Your task to perform on an android device: Clear the shopping cart on bestbuy.com. Add razer thresher to the cart on bestbuy.com, then select checkout. Image 0: 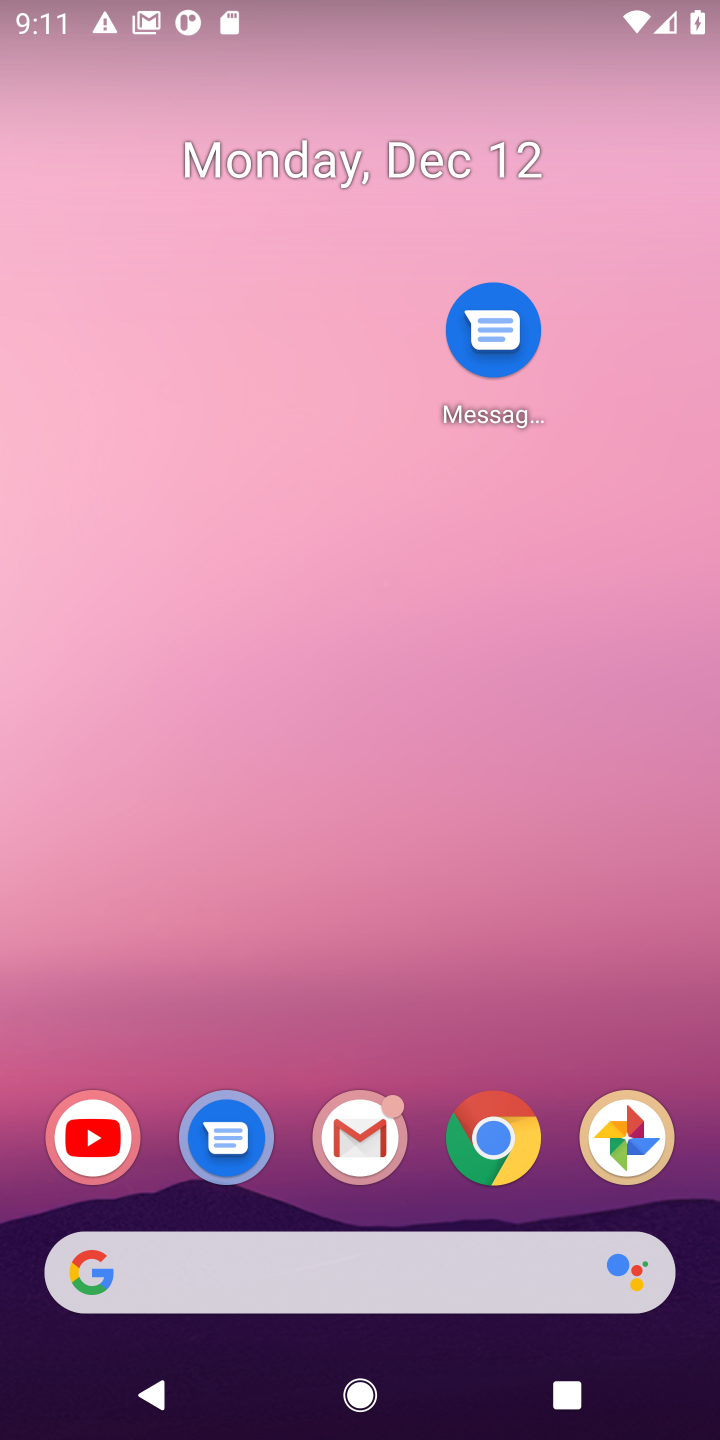
Step 0: drag from (336, 1006) to (338, 571)
Your task to perform on an android device: Clear the shopping cart on bestbuy.com. Add razer thresher to the cart on bestbuy.com, then select checkout. Image 1: 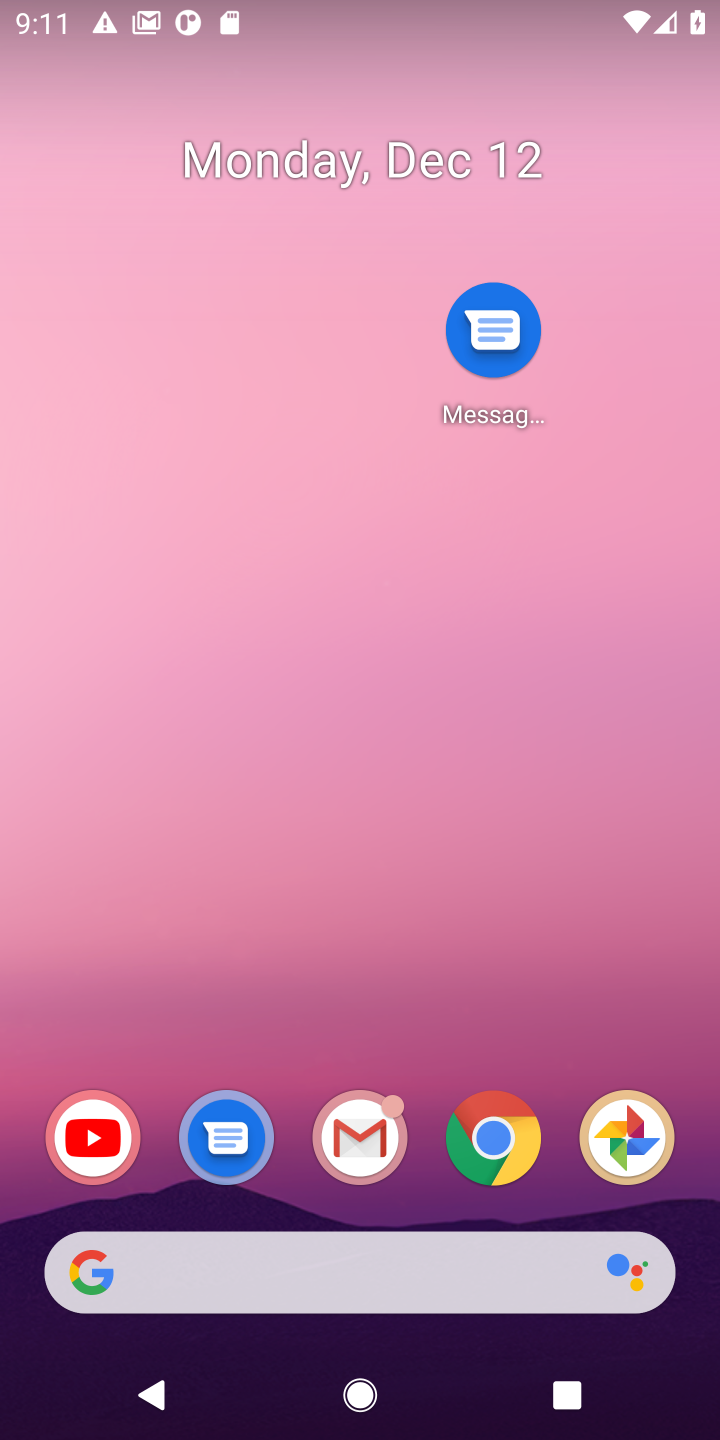
Step 1: click (312, 622)
Your task to perform on an android device: Clear the shopping cart on bestbuy.com. Add razer thresher to the cart on bestbuy.com, then select checkout. Image 2: 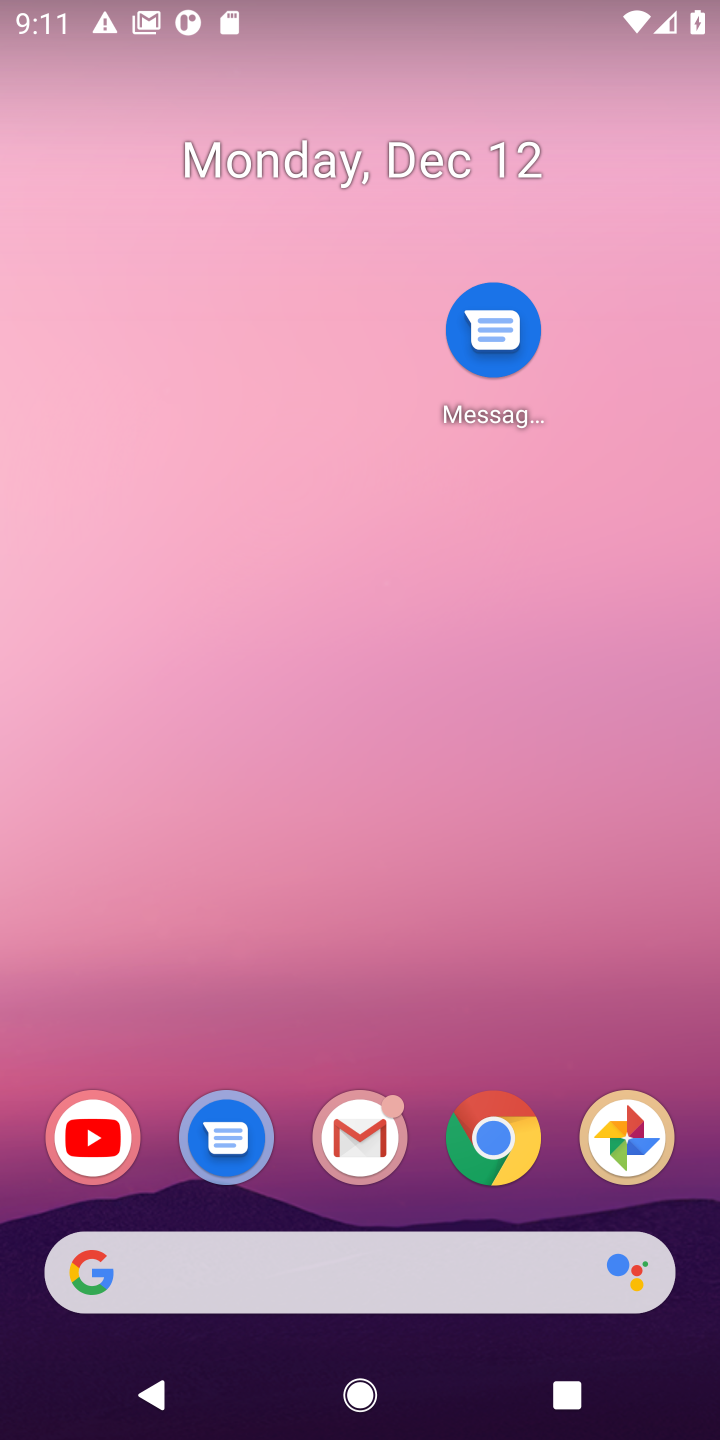
Step 2: drag from (306, 1081) to (277, 611)
Your task to perform on an android device: Clear the shopping cart on bestbuy.com. Add razer thresher to the cart on bestbuy.com, then select checkout. Image 3: 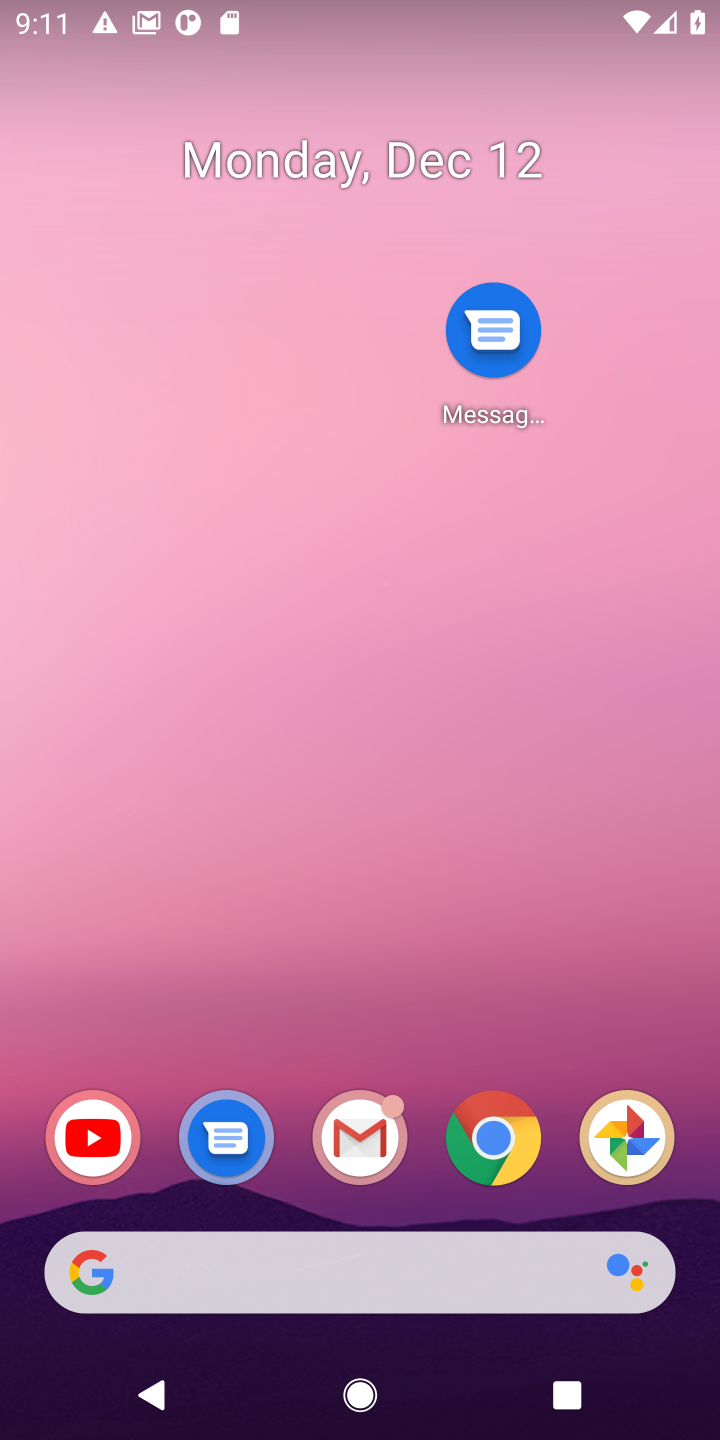
Step 3: drag from (343, 1220) to (328, 456)
Your task to perform on an android device: Clear the shopping cart on bestbuy.com. Add razer thresher to the cart on bestbuy.com, then select checkout. Image 4: 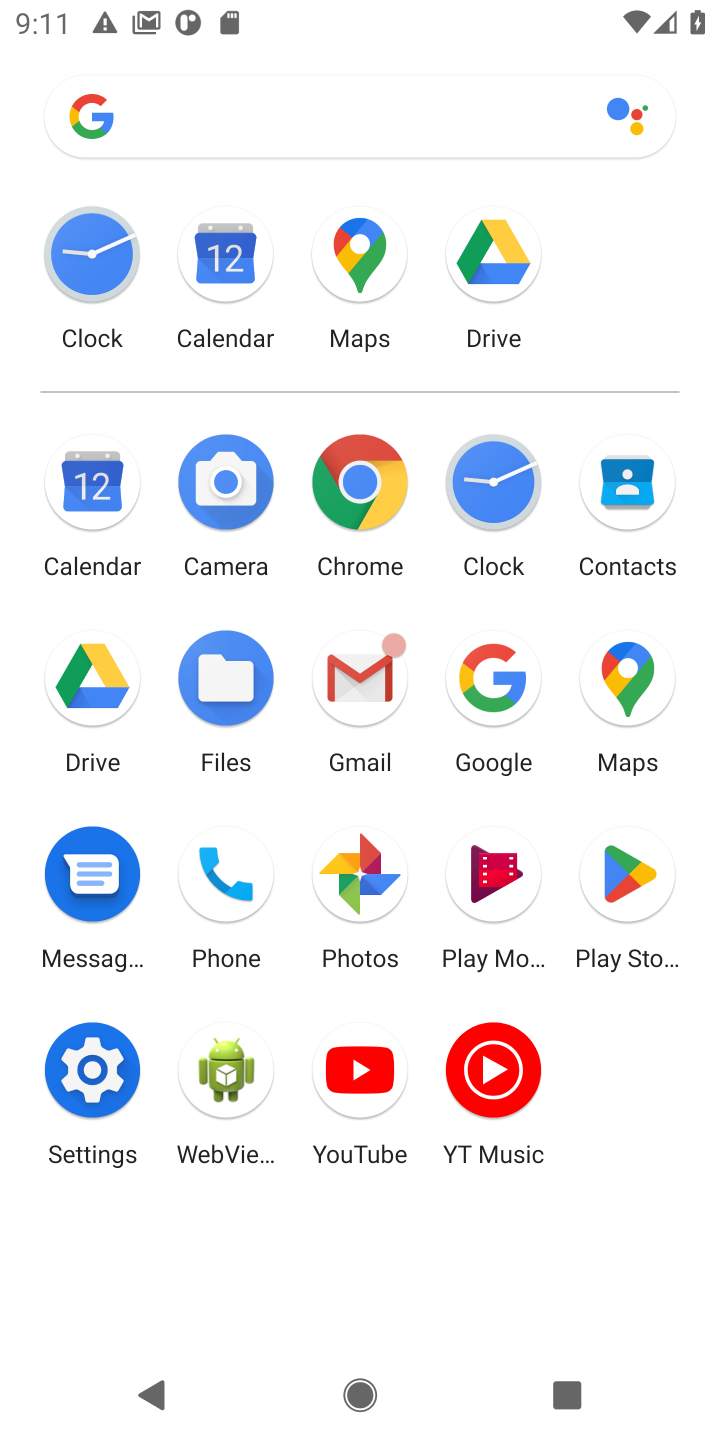
Step 4: click (473, 674)
Your task to perform on an android device: Clear the shopping cart on bestbuy.com. Add razer thresher to the cart on bestbuy.com, then select checkout. Image 5: 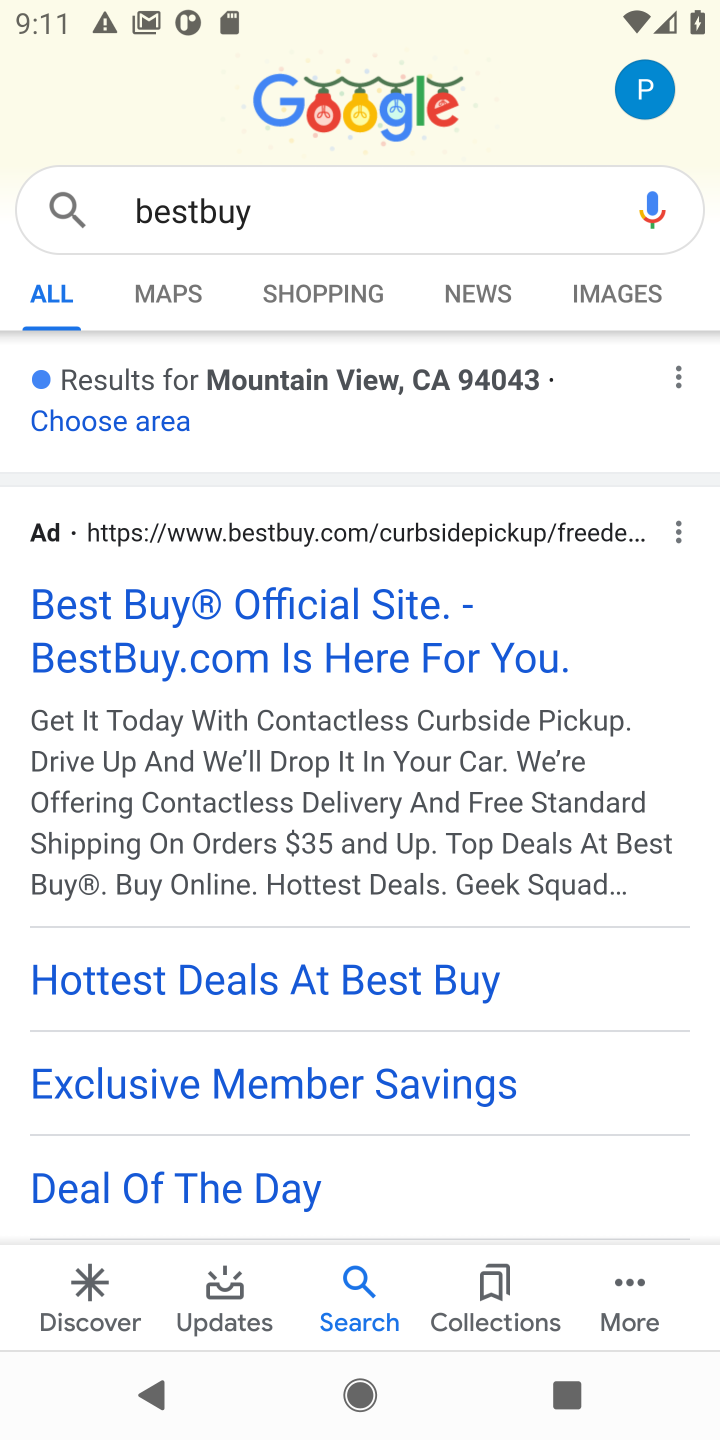
Step 5: click (181, 219)
Your task to perform on an android device: Clear the shopping cart on bestbuy.com. Add razer thresher to the cart on bestbuy.com, then select checkout. Image 6: 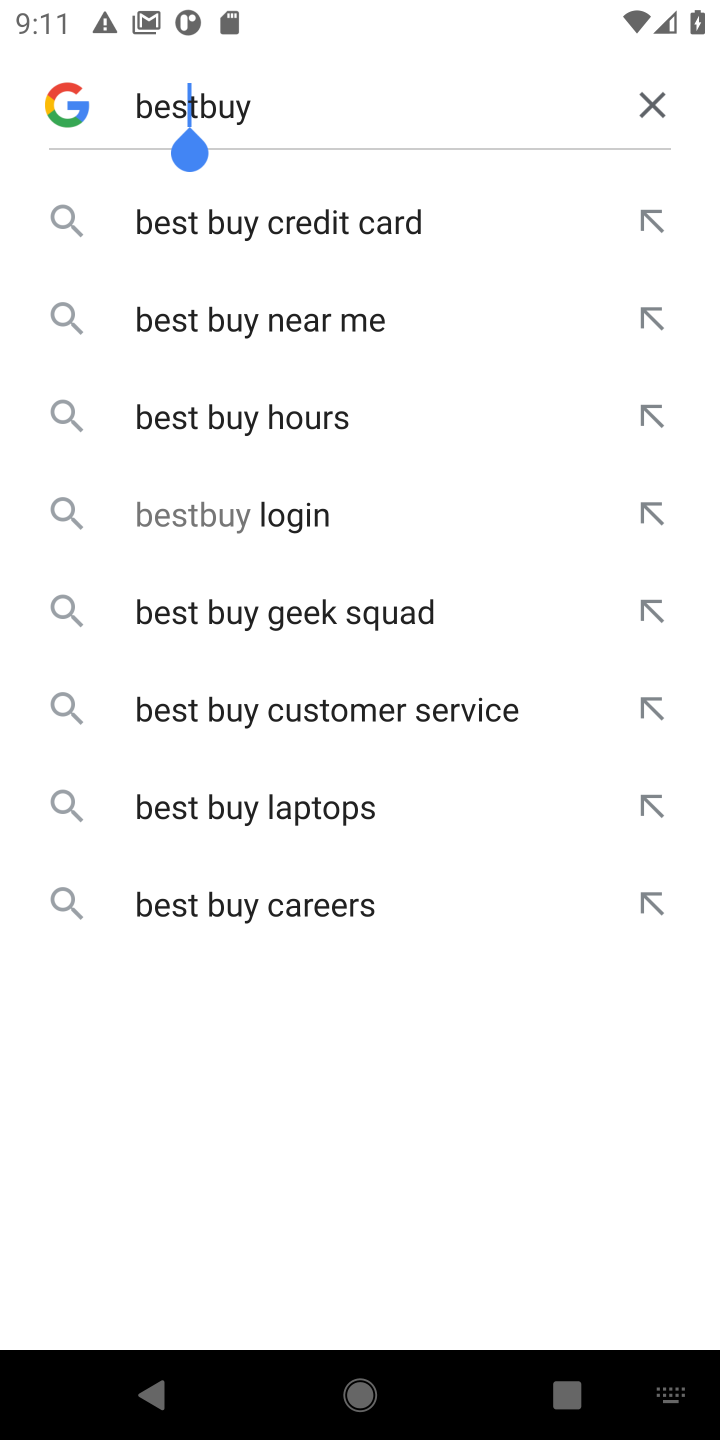
Step 6: click (645, 118)
Your task to perform on an android device: Clear the shopping cart on bestbuy.com. Add razer thresher to the cart on bestbuy.com, then select checkout. Image 7: 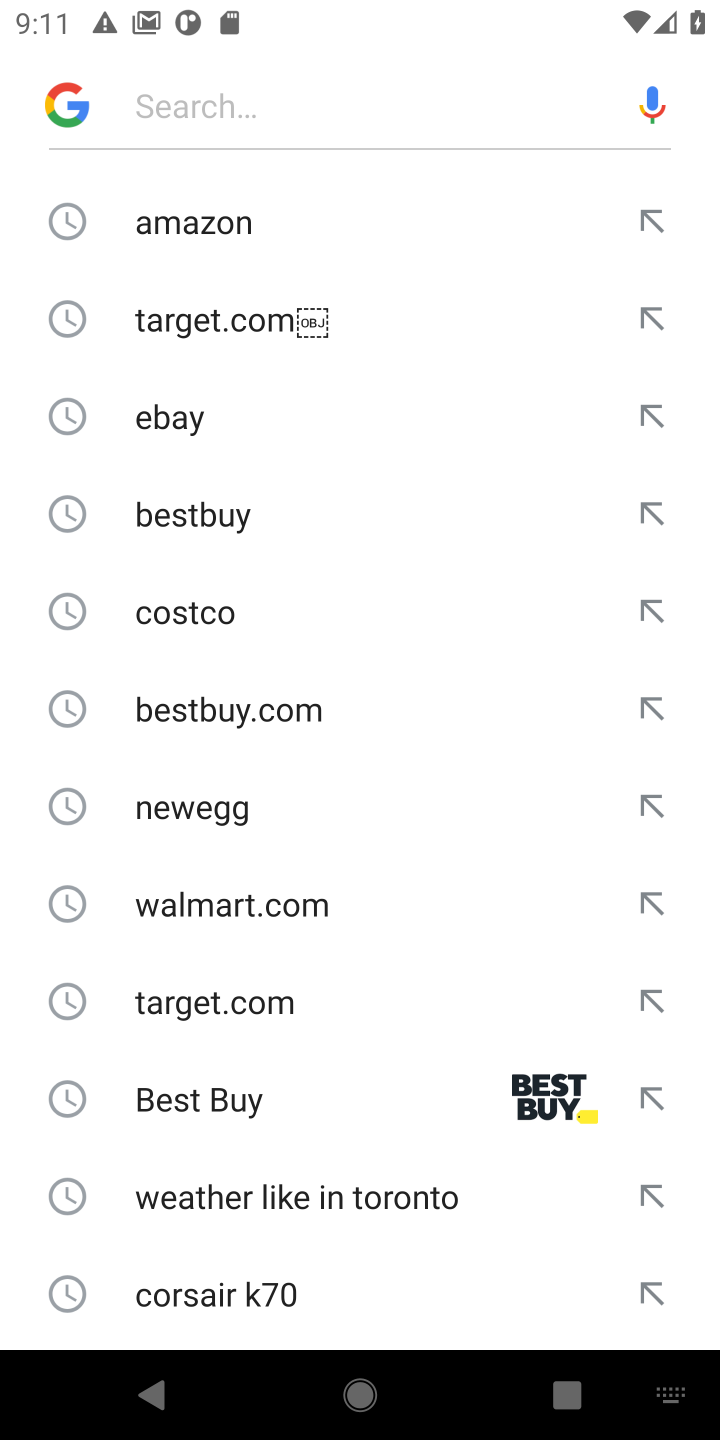
Step 7: click (193, 116)
Your task to perform on an android device: Clear the shopping cart on bestbuy.com. Add razer thresher to the cart on bestbuy.com, then select checkout. Image 8: 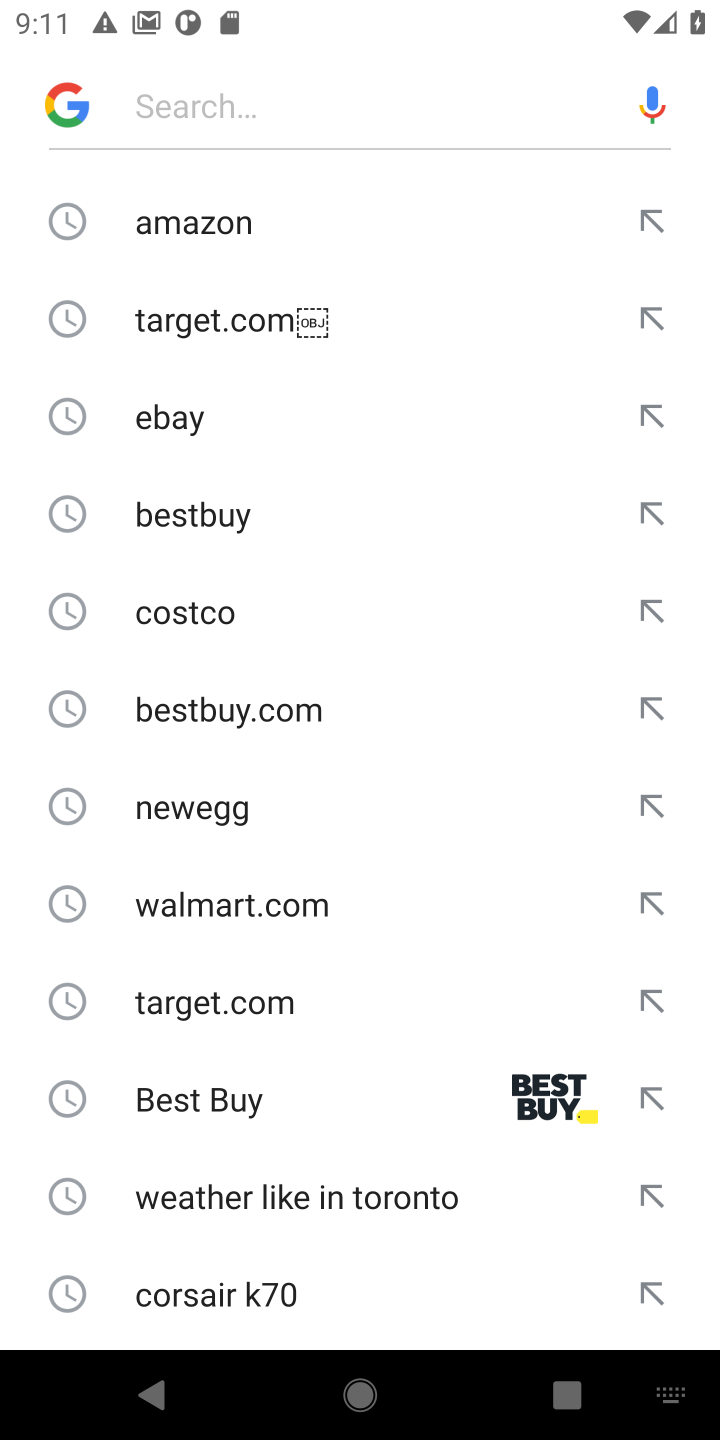
Step 8: click (164, 519)
Your task to perform on an android device: Clear the shopping cart on bestbuy.com. Add razer thresher to the cart on bestbuy.com, then select checkout. Image 9: 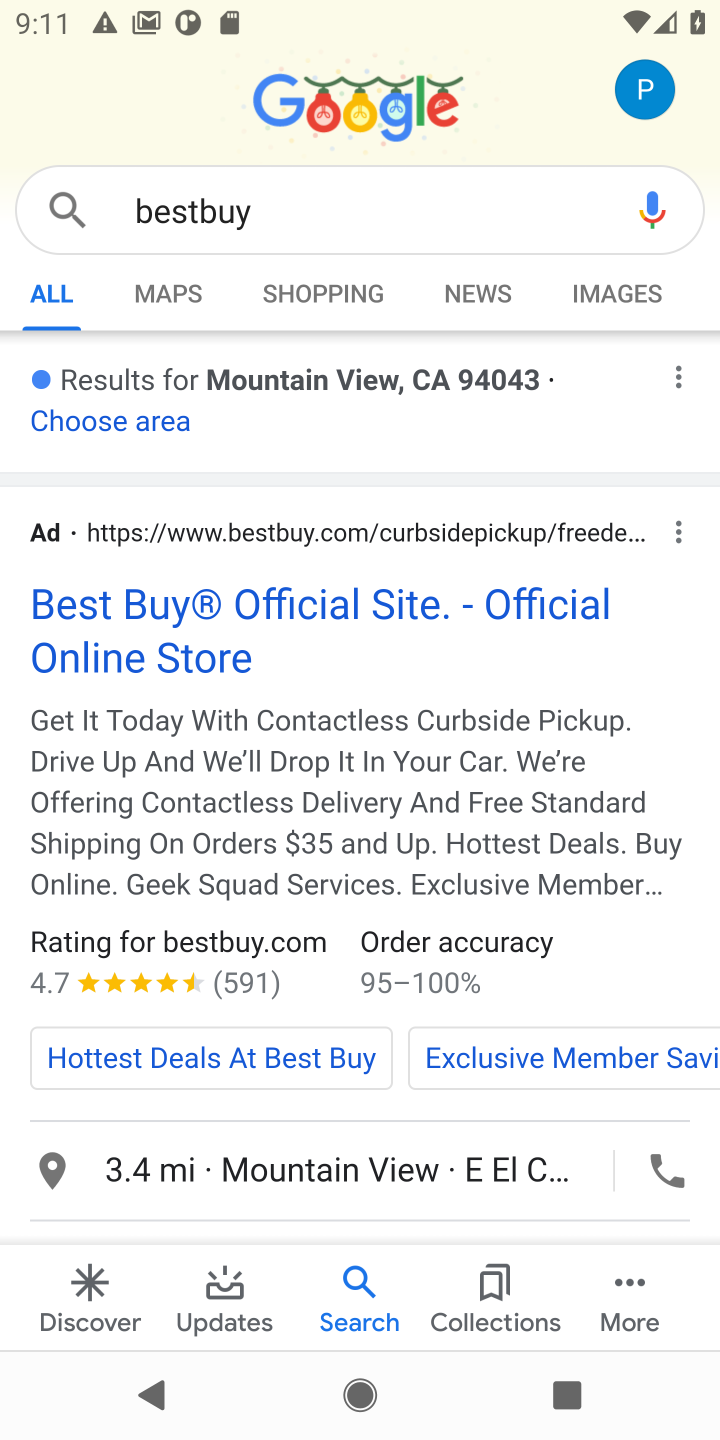
Step 9: click (169, 628)
Your task to perform on an android device: Clear the shopping cart on bestbuy.com. Add razer thresher to the cart on bestbuy.com, then select checkout. Image 10: 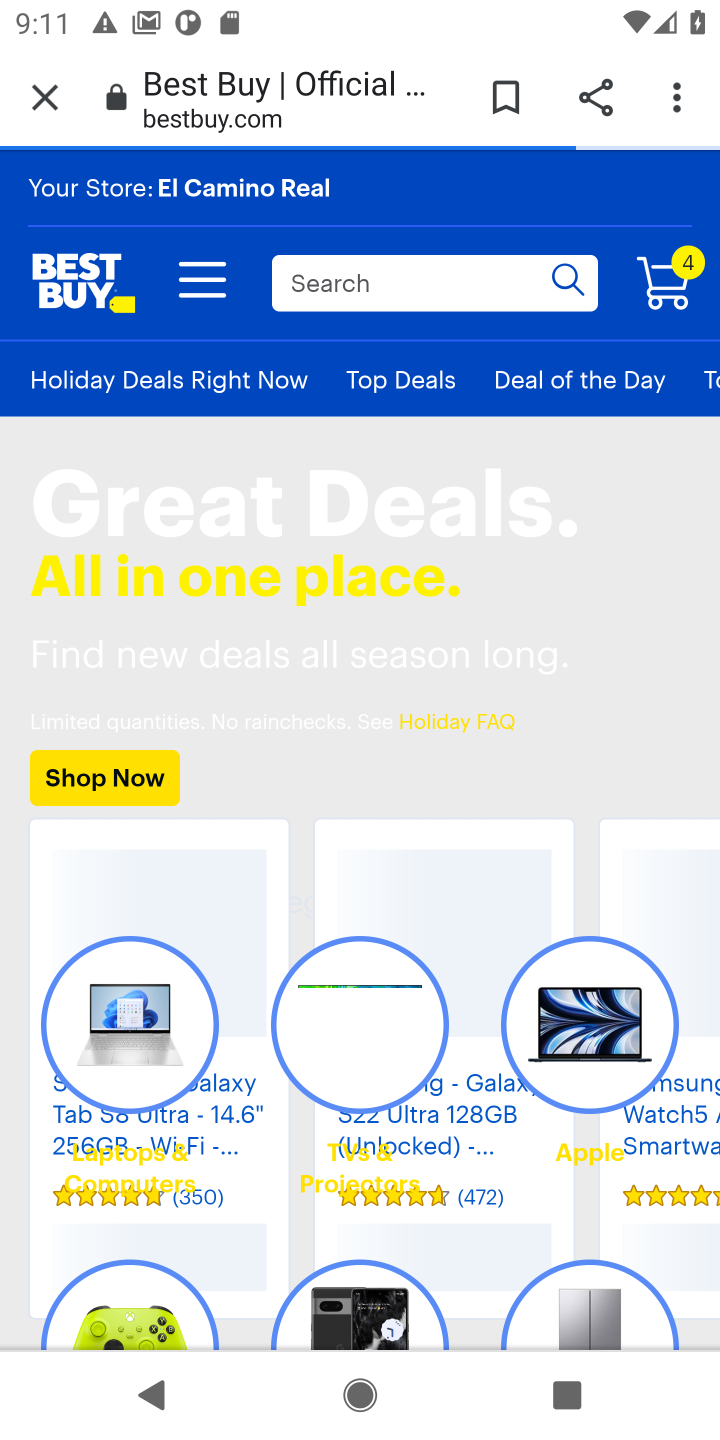
Step 10: click (328, 277)
Your task to perform on an android device: Clear the shopping cart on bestbuy.com. Add razer thresher to the cart on bestbuy.com, then select checkout. Image 11: 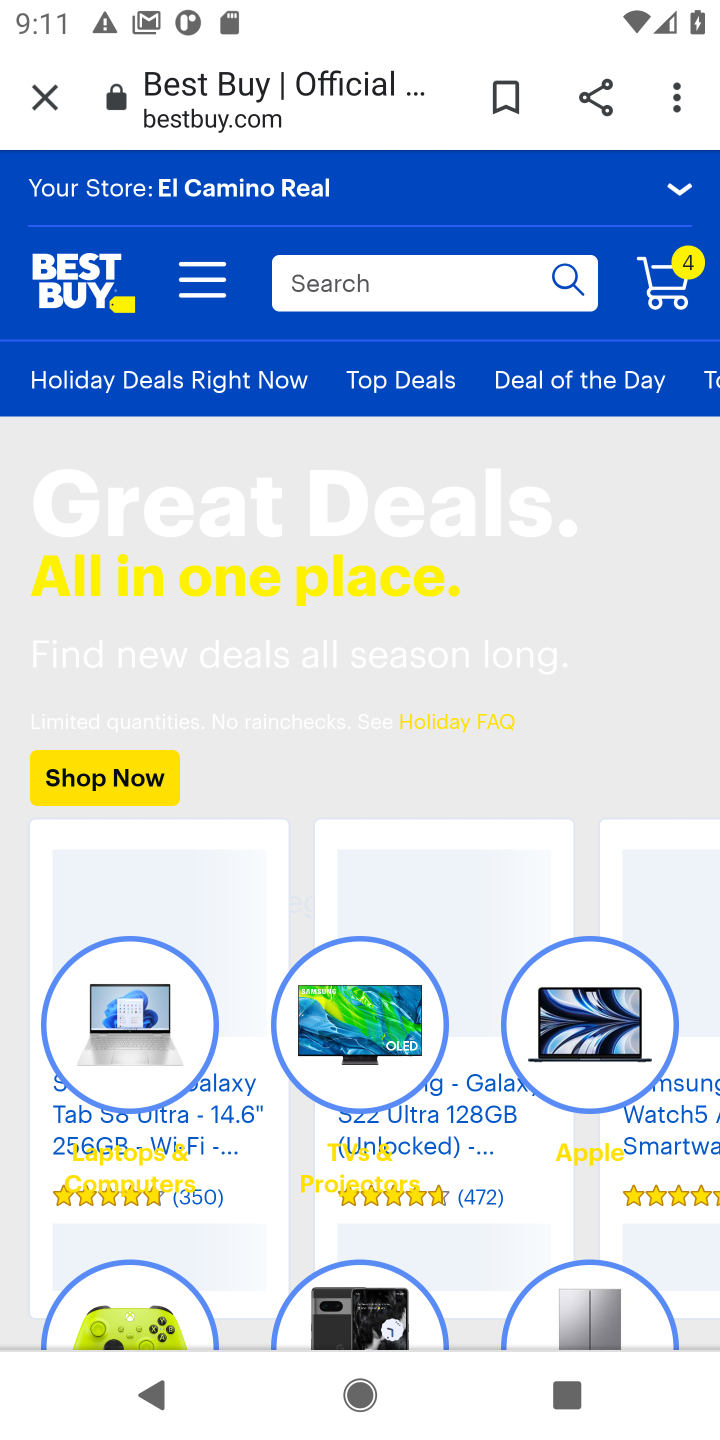
Step 11: click (674, 252)
Your task to perform on an android device: Clear the shopping cart on bestbuy.com. Add razer thresher to the cart on bestbuy.com, then select checkout. Image 12: 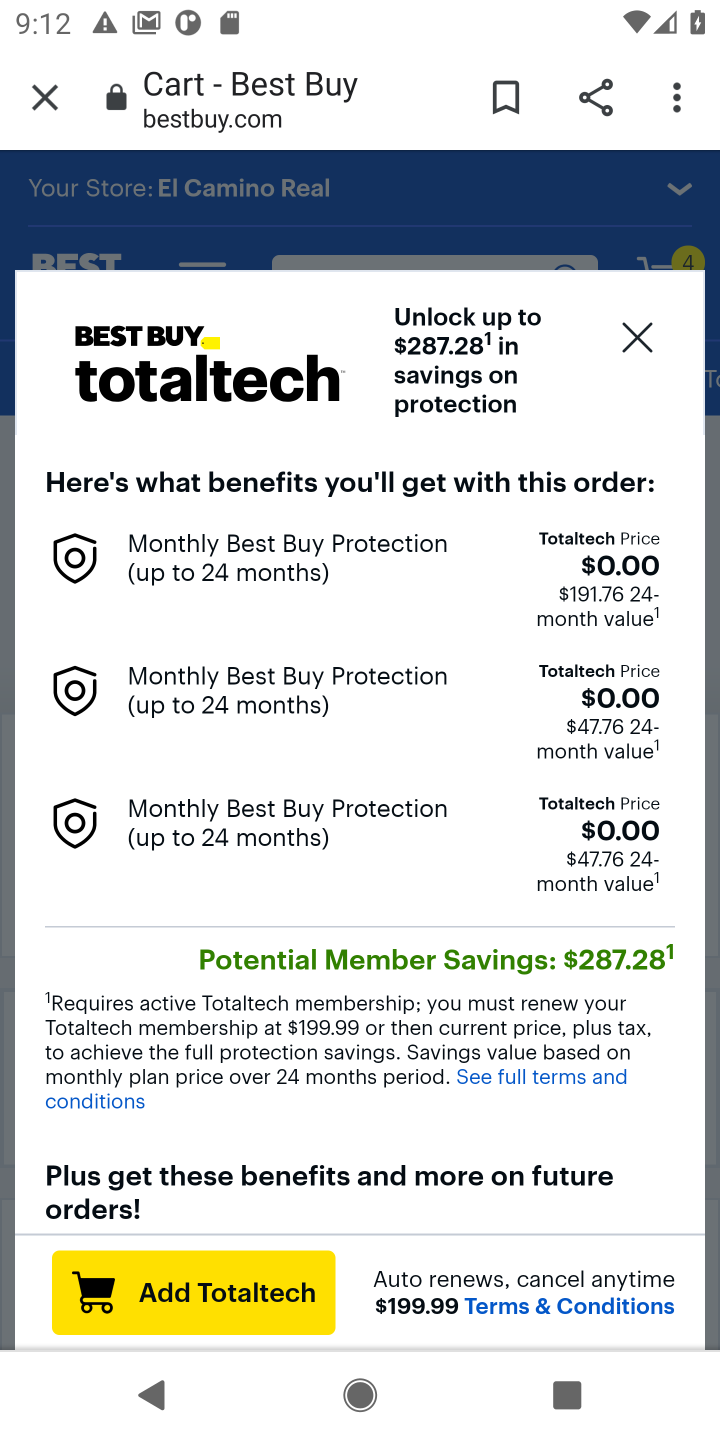
Step 12: click (631, 334)
Your task to perform on an android device: Clear the shopping cart on bestbuy.com. Add razer thresher to the cart on bestbuy.com, then select checkout. Image 13: 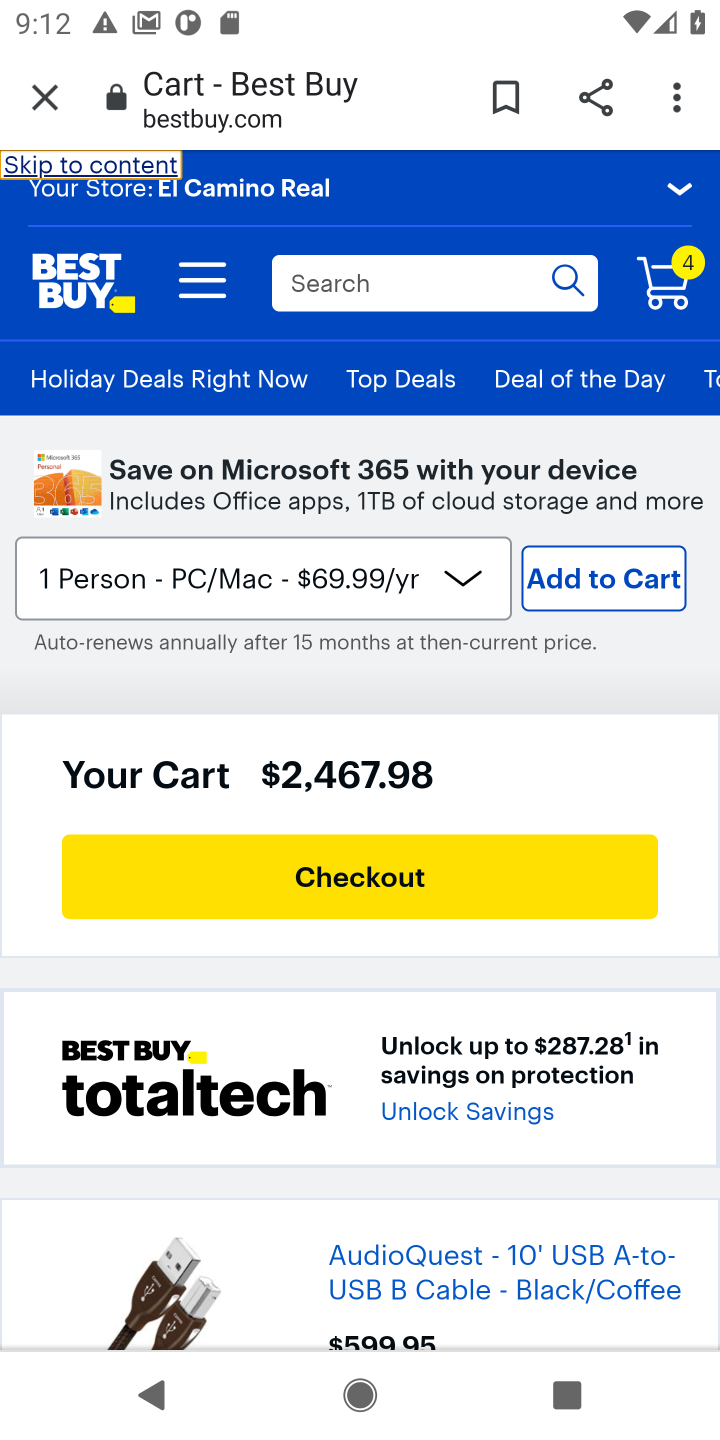
Step 13: drag from (659, 1046) to (609, 484)
Your task to perform on an android device: Clear the shopping cart on bestbuy.com. Add razer thresher to the cart on bestbuy.com, then select checkout. Image 14: 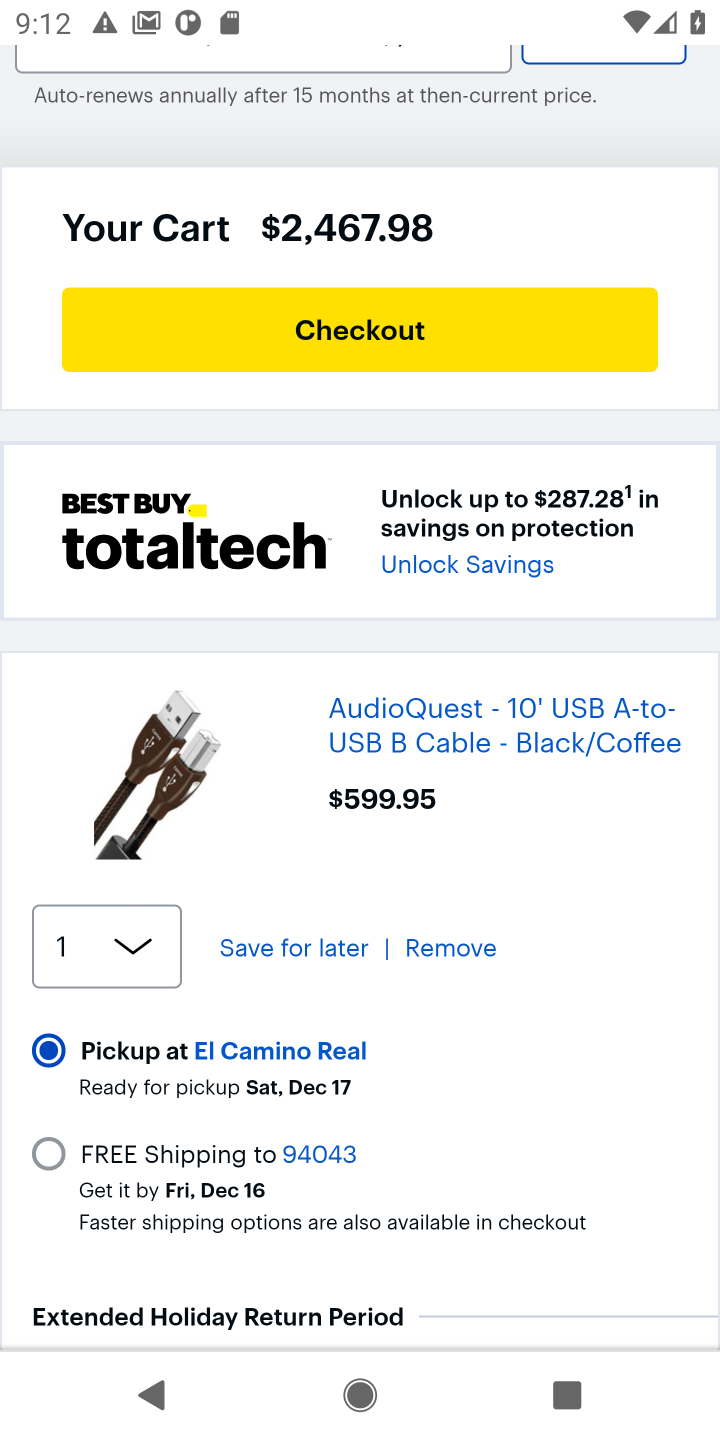
Step 14: drag from (553, 962) to (547, 569)
Your task to perform on an android device: Clear the shopping cart on bestbuy.com. Add razer thresher to the cart on bestbuy.com, then select checkout. Image 15: 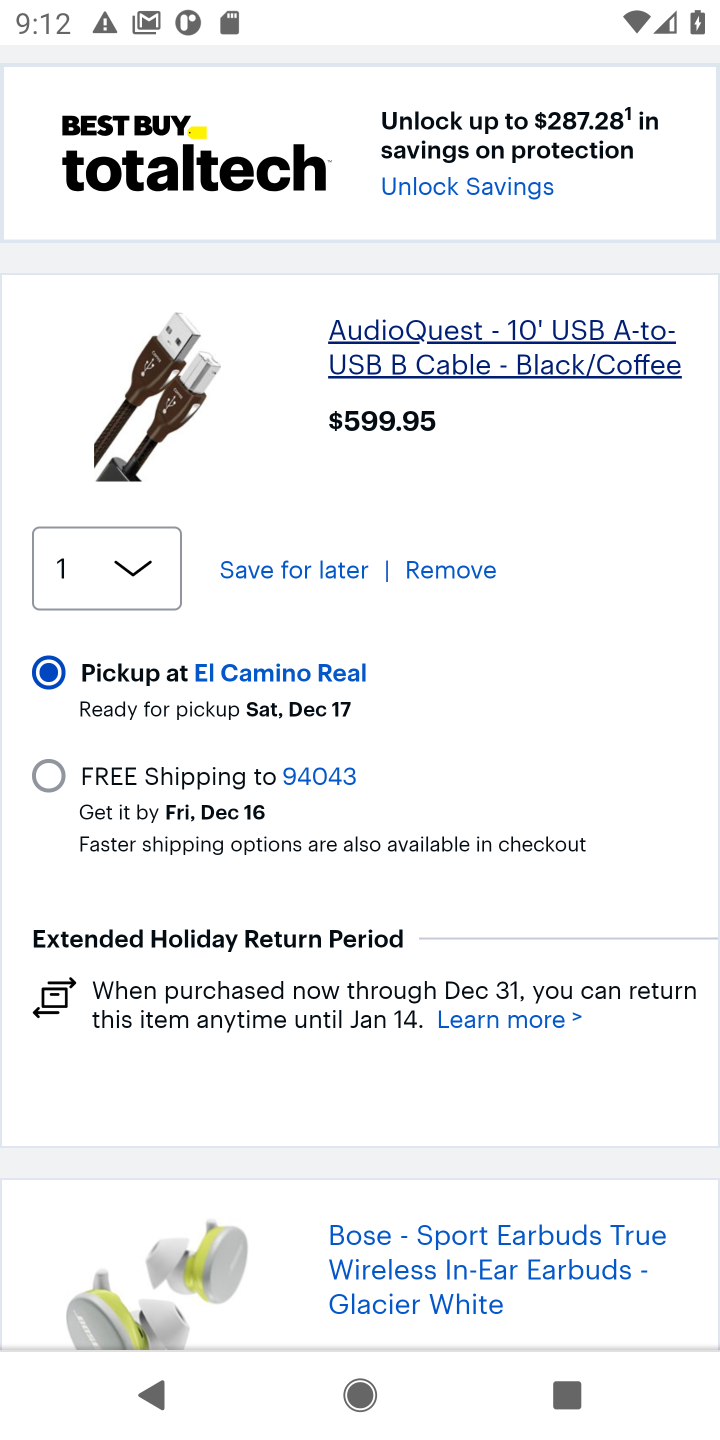
Step 15: click (464, 566)
Your task to perform on an android device: Clear the shopping cart on bestbuy.com. Add razer thresher to the cart on bestbuy.com, then select checkout. Image 16: 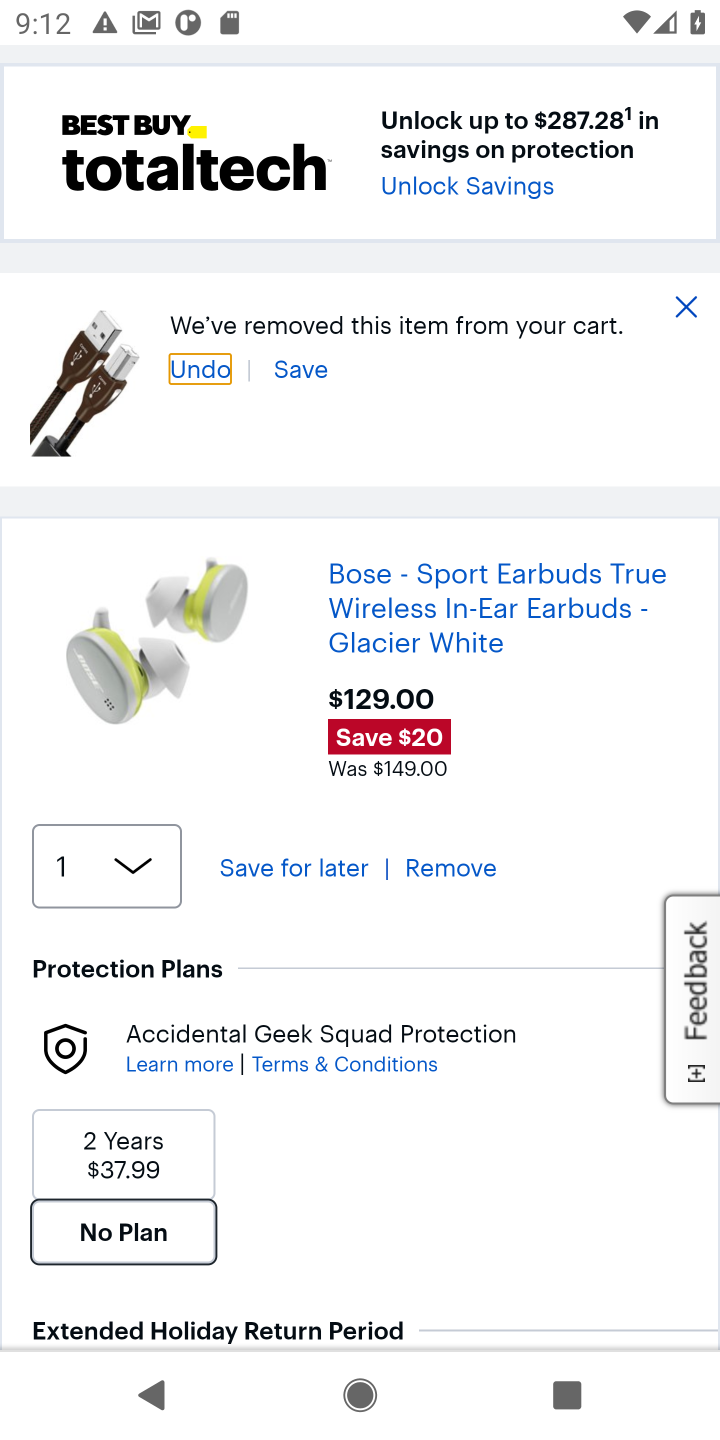
Step 16: click (429, 867)
Your task to perform on an android device: Clear the shopping cart on bestbuy.com. Add razer thresher to the cart on bestbuy.com, then select checkout. Image 17: 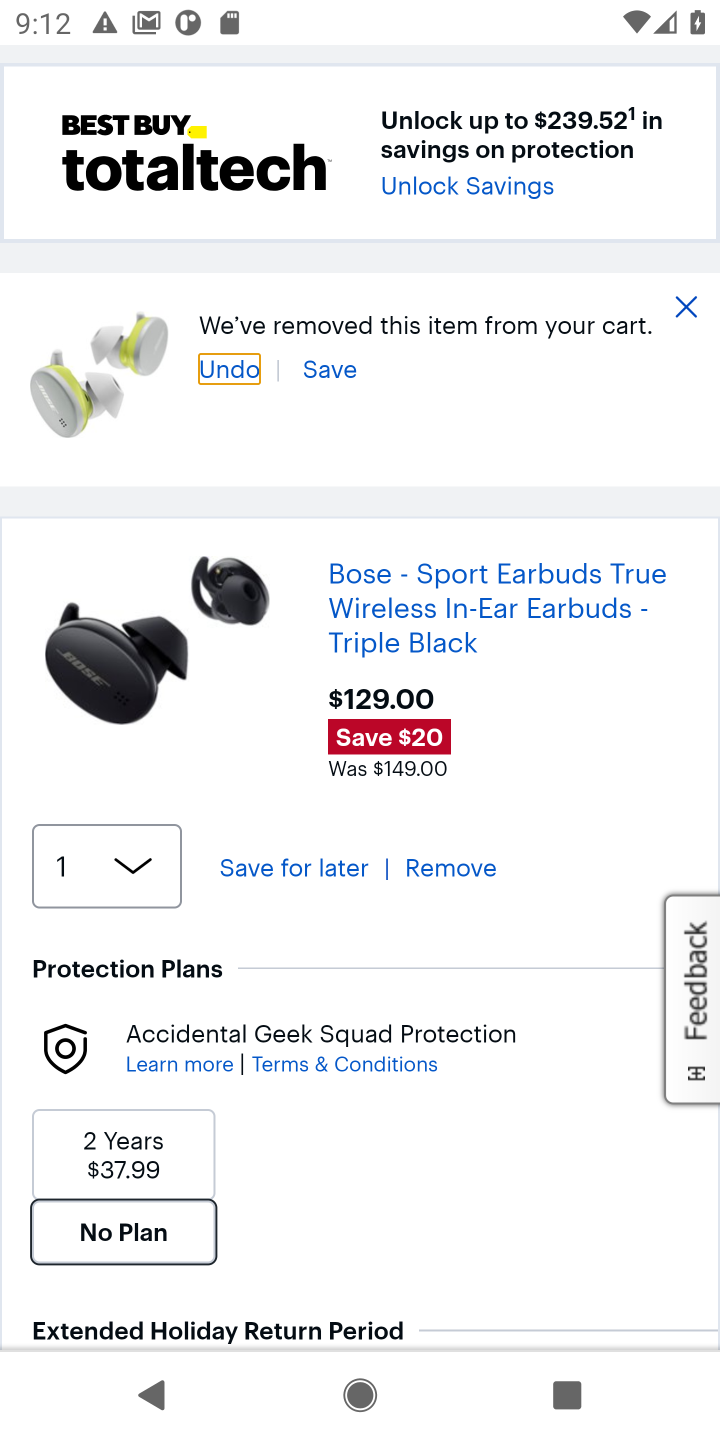
Step 17: click (429, 867)
Your task to perform on an android device: Clear the shopping cart on bestbuy.com. Add razer thresher to the cart on bestbuy.com, then select checkout. Image 18: 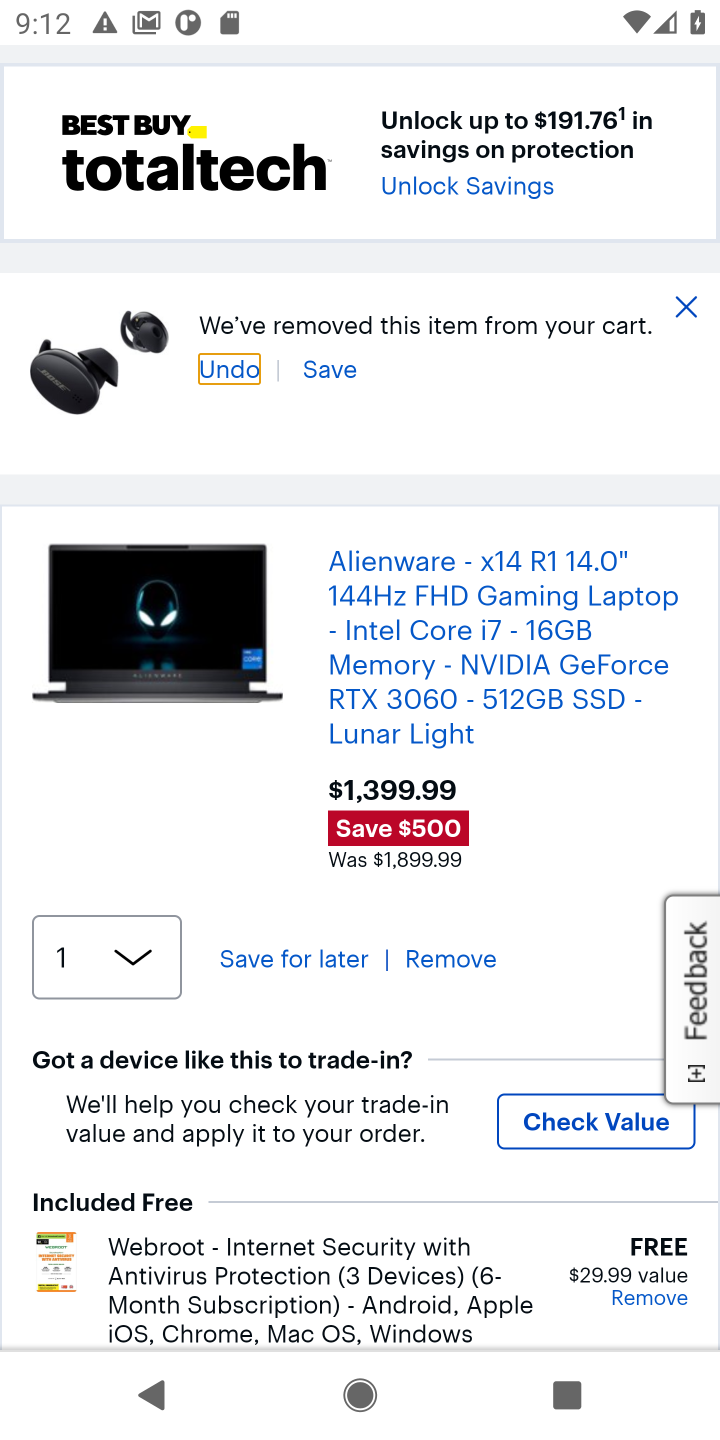
Step 18: click (472, 946)
Your task to perform on an android device: Clear the shopping cart on bestbuy.com. Add razer thresher to the cart on bestbuy.com, then select checkout. Image 19: 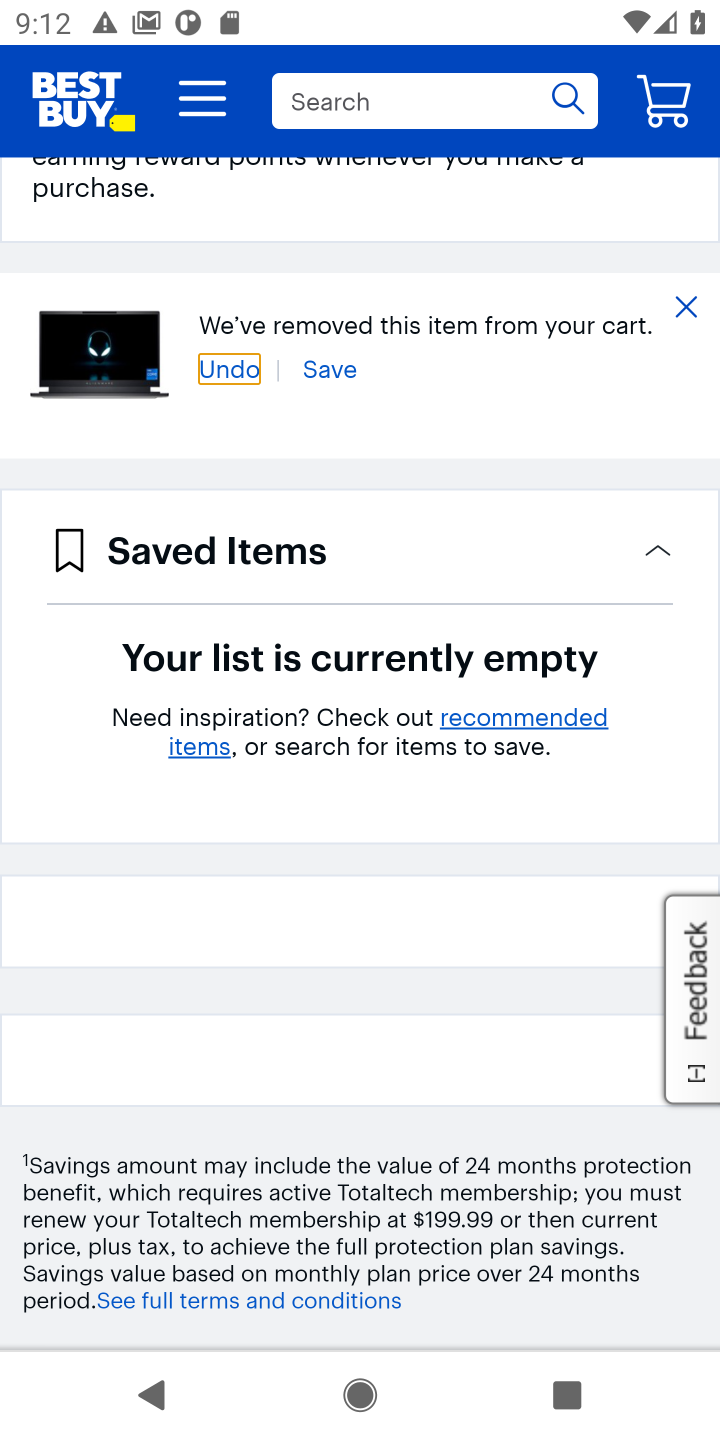
Step 19: click (446, 819)
Your task to perform on an android device: Clear the shopping cart on bestbuy.com. Add razer thresher to the cart on bestbuy.com, then select checkout. Image 20: 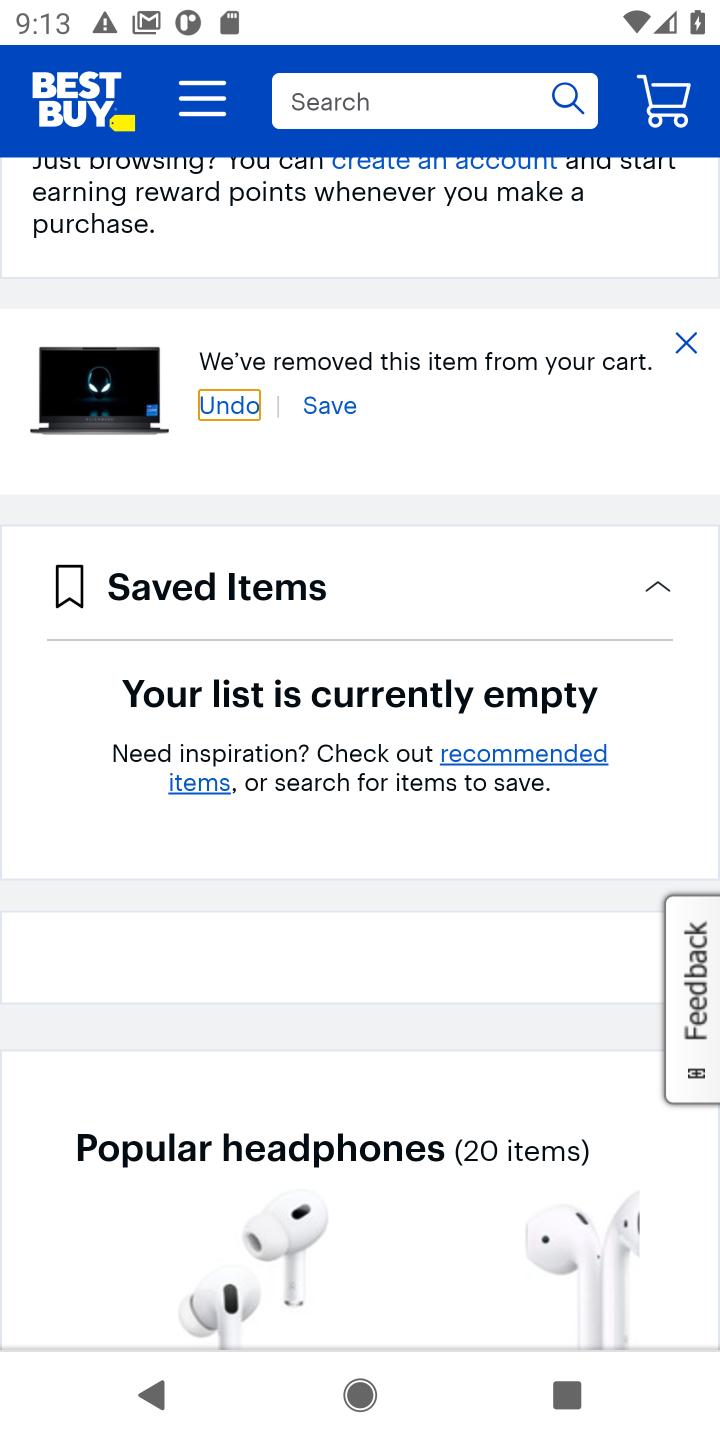
Step 20: task complete